Your task to perform on an android device: snooze an email in the gmail app Image 0: 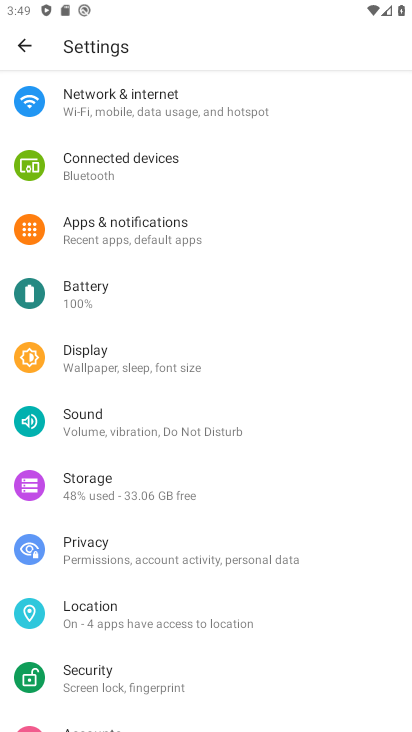
Step 0: press home button
Your task to perform on an android device: snooze an email in the gmail app Image 1: 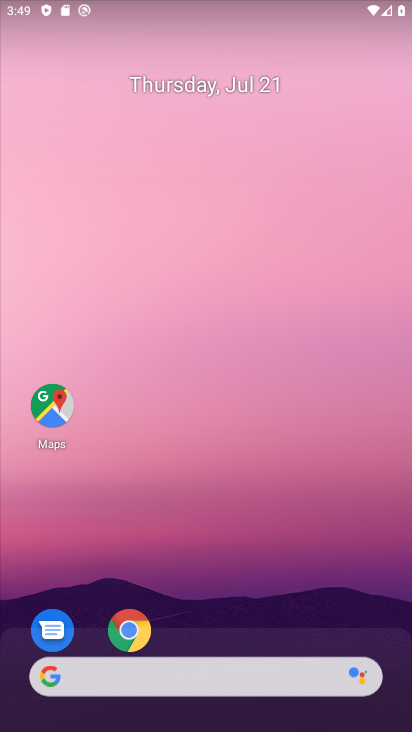
Step 1: drag from (262, 529) to (230, 91)
Your task to perform on an android device: snooze an email in the gmail app Image 2: 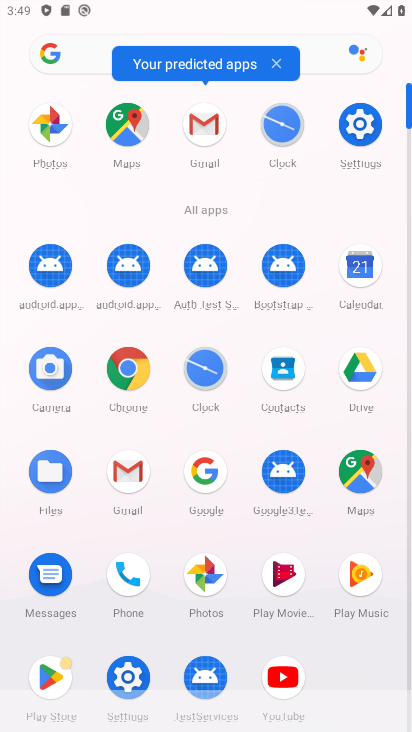
Step 2: click (197, 127)
Your task to perform on an android device: snooze an email in the gmail app Image 3: 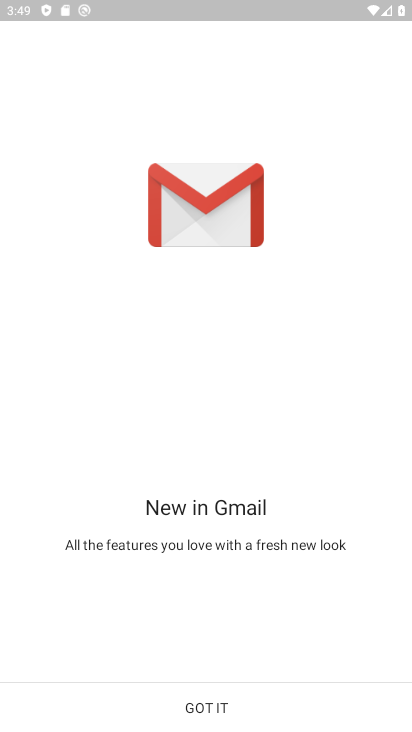
Step 3: click (211, 714)
Your task to perform on an android device: snooze an email in the gmail app Image 4: 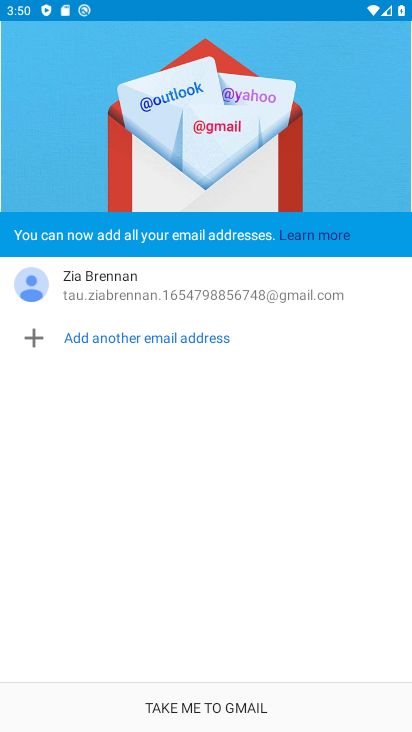
Step 4: click (207, 705)
Your task to perform on an android device: snooze an email in the gmail app Image 5: 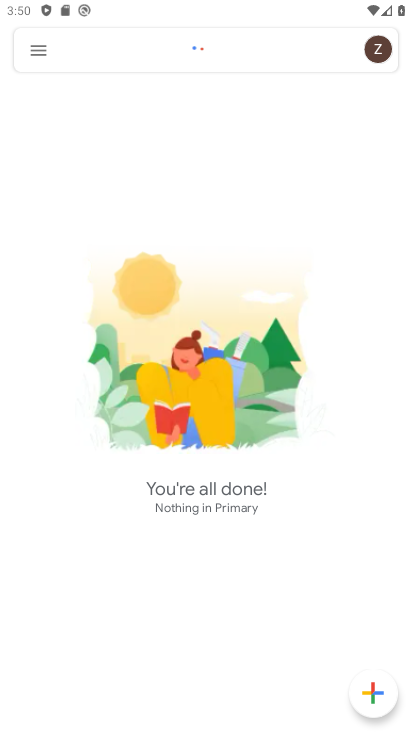
Step 5: click (30, 41)
Your task to perform on an android device: snooze an email in the gmail app Image 6: 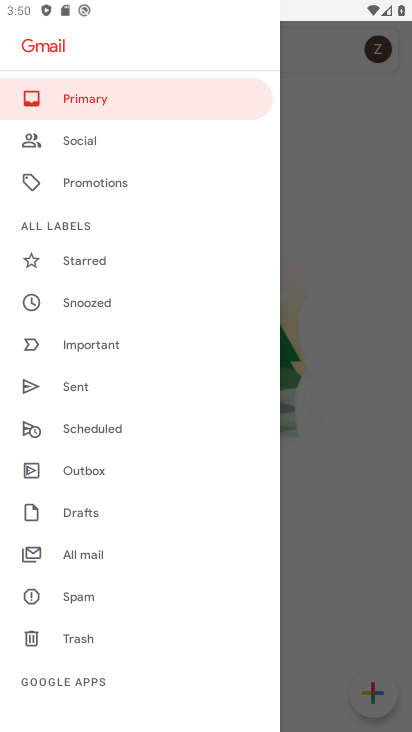
Step 6: click (88, 548)
Your task to perform on an android device: snooze an email in the gmail app Image 7: 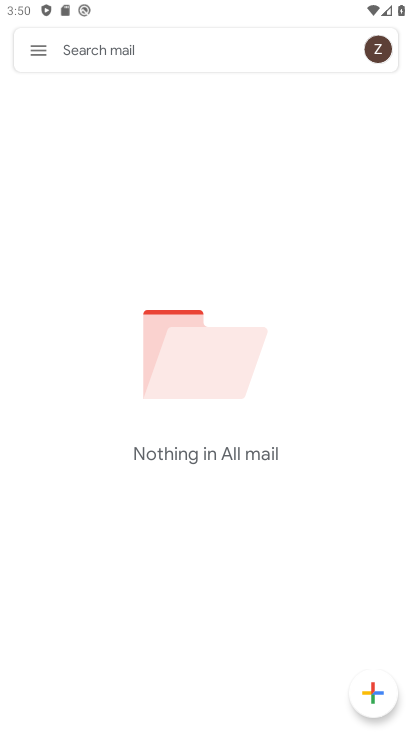
Step 7: task complete